Your task to perform on an android device: toggle improve location accuracy Image 0: 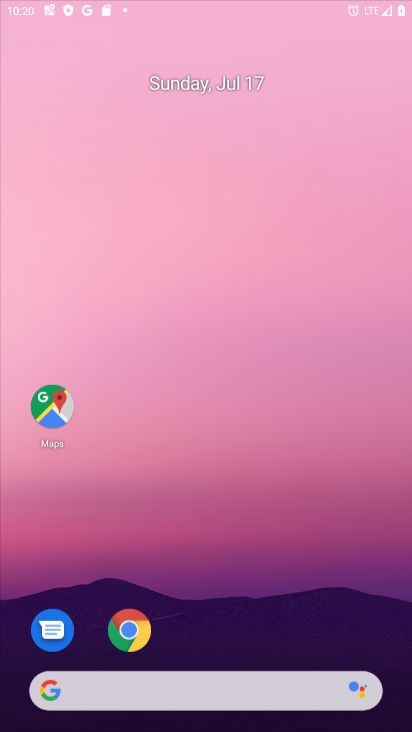
Step 0: press home button
Your task to perform on an android device: toggle improve location accuracy Image 1: 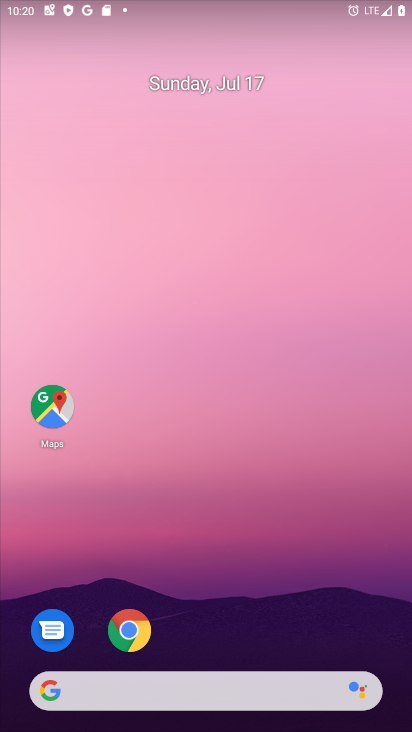
Step 1: drag from (221, 644) to (260, 132)
Your task to perform on an android device: toggle improve location accuracy Image 2: 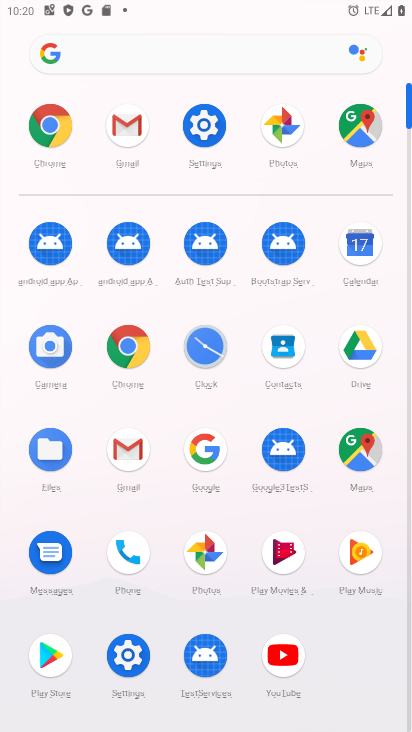
Step 2: click (126, 645)
Your task to perform on an android device: toggle improve location accuracy Image 3: 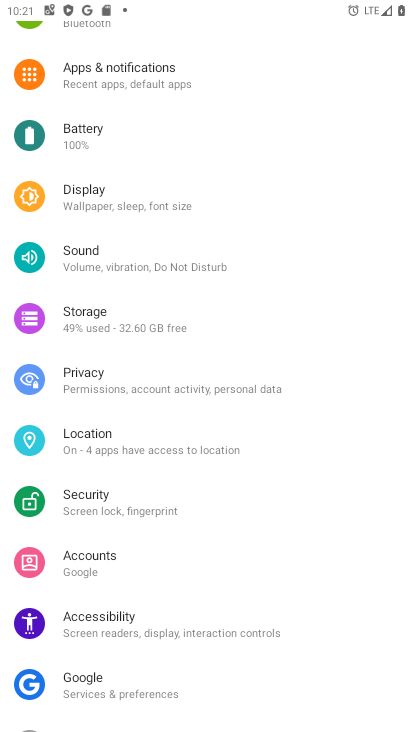
Step 3: click (130, 432)
Your task to perform on an android device: toggle improve location accuracy Image 4: 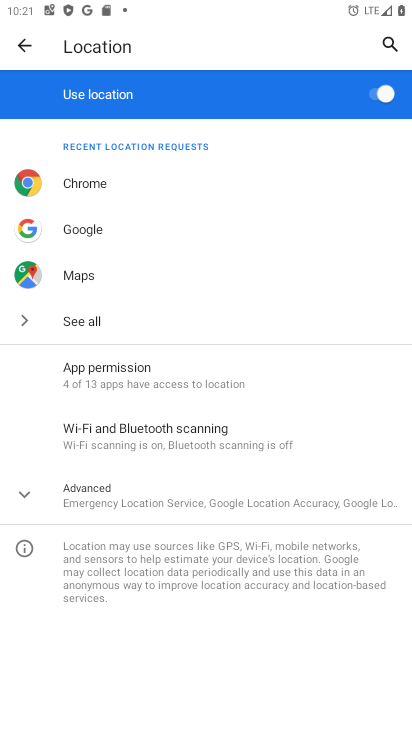
Step 4: click (24, 485)
Your task to perform on an android device: toggle improve location accuracy Image 5: 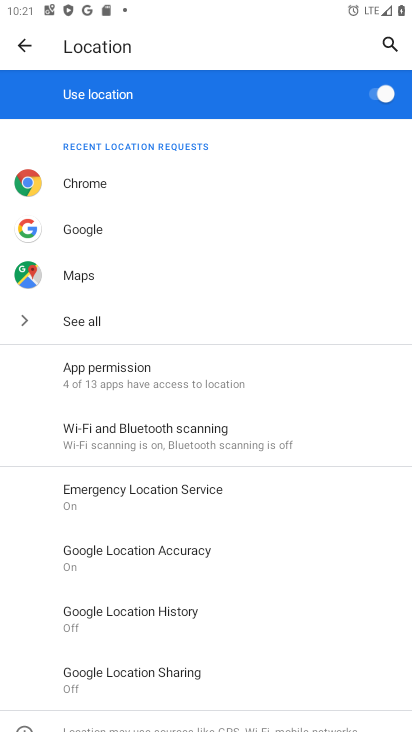
Step 5: click (135, 553)
Your task to perform on an android device: toggle improve location accuracy Image 6: 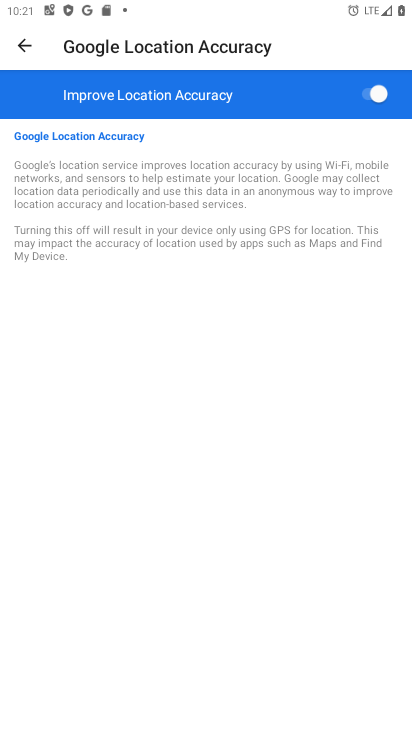
Step 6: click (369, 87)
Your task to perform on an android device: toggle improve location accuracy Image 7: 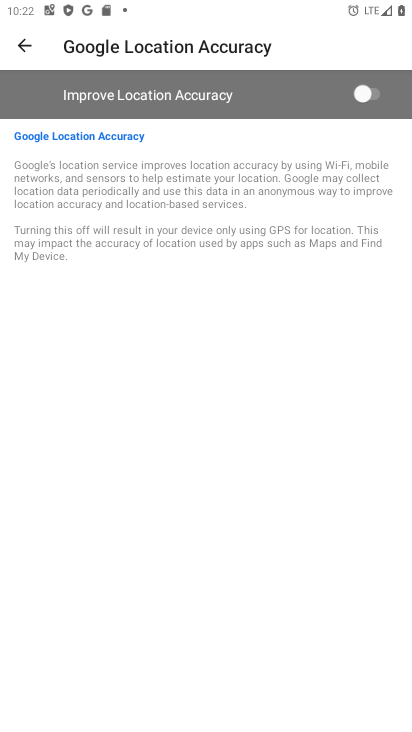
Step 7: task complete